Your task to perform on an android device: open chrome and create a bookmark for the current page Image 0: 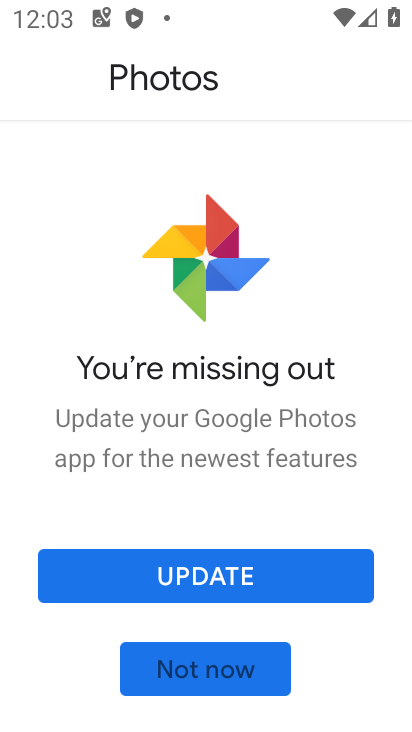
Step 0: press home button
Your task to perform on an android device: open chrome and create a bookmark for the current page Image 1: 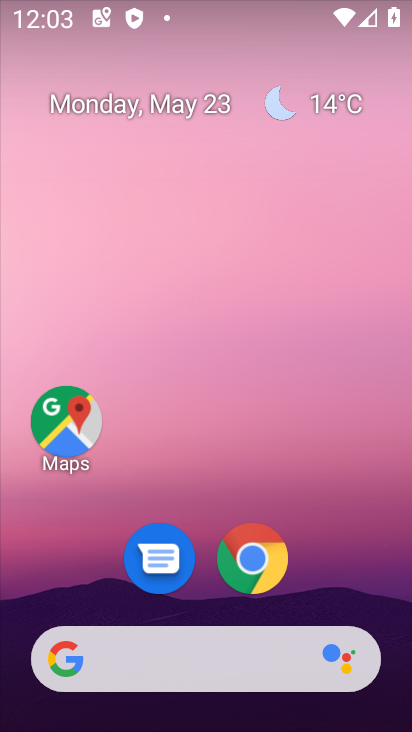
Step 1: click (259, 565)
Your task to perform on an android device: open chrome and create a bookmark for the current page Image 2: 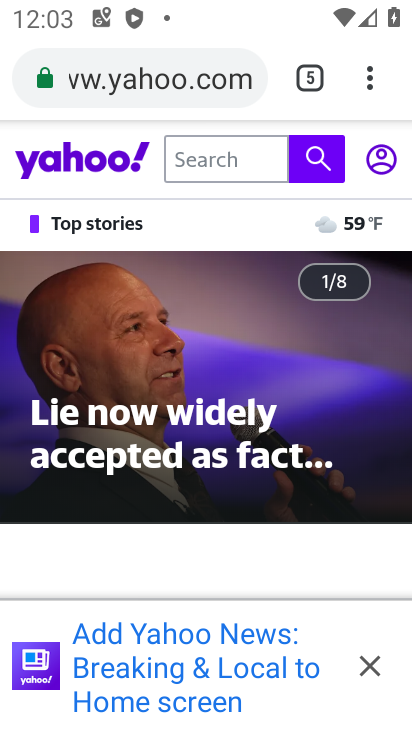
Step 2: click (370, 78)
Your task to perform on an android device: open chrome and create a bookmark for the current page Image 3: 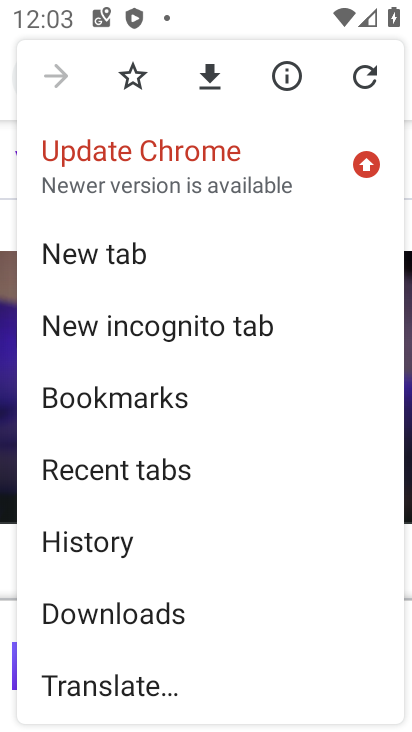
Step 3: click (130, 76)
Your task to perform on an android device: open chrome and create a bookmark for the current page Image 4: 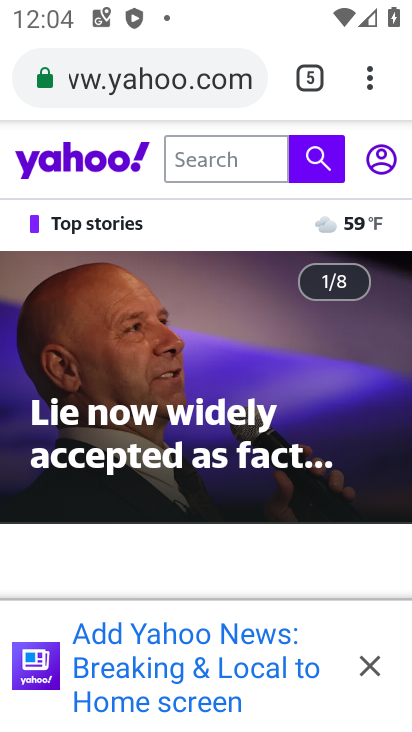
Step 4: task complete